Your task to perform on an android device: toggle notifications settings in the gmail app Image 0: 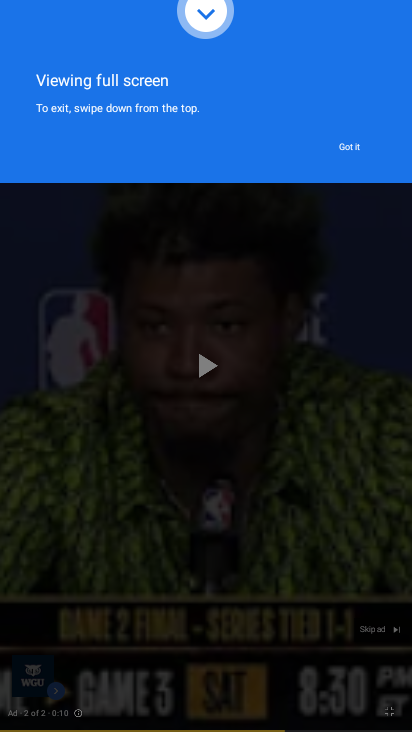
Step 0: press home button
Your task to perform on an android device: toggle notifications settings in the gmail app Image 1: 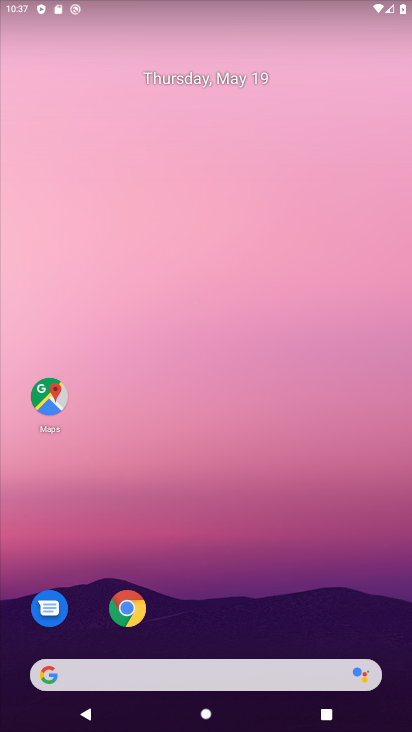
Step 1: drag from (395, 697) to (357, 158)
Your task to perform on an android device: toggle notifications settings in the gmail app Image 2: 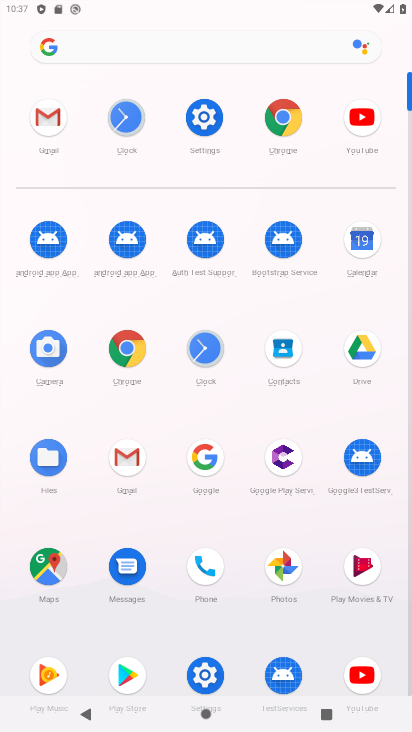
Step 2: click (130, 454)
Your task to perform on an android device: toggle notifications settings in the gmail app Image 3: 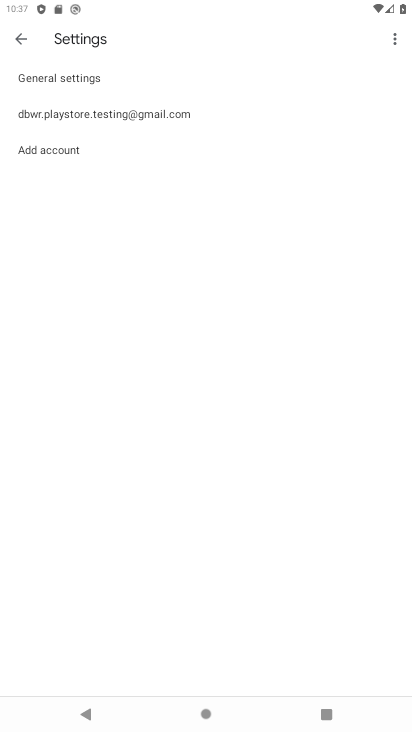
Step 3: click (59, 76)
Your task to perform on an android device: toggle notifications settings in the gmail app Image 4: 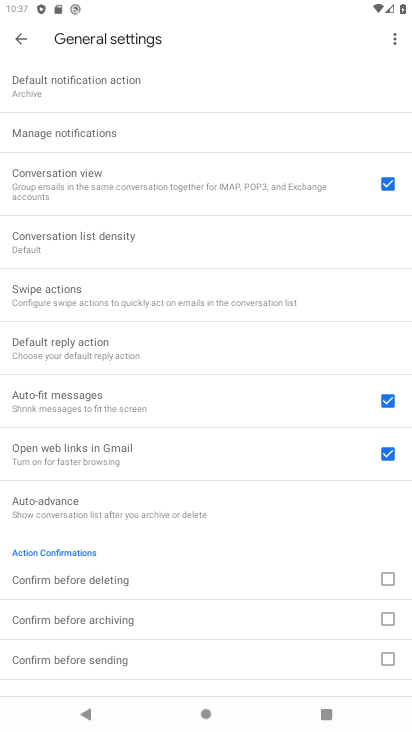
Step 4: click (53, 129)
Your task to perform on an android device: toggle notifications settings in the gmail app Image 5: 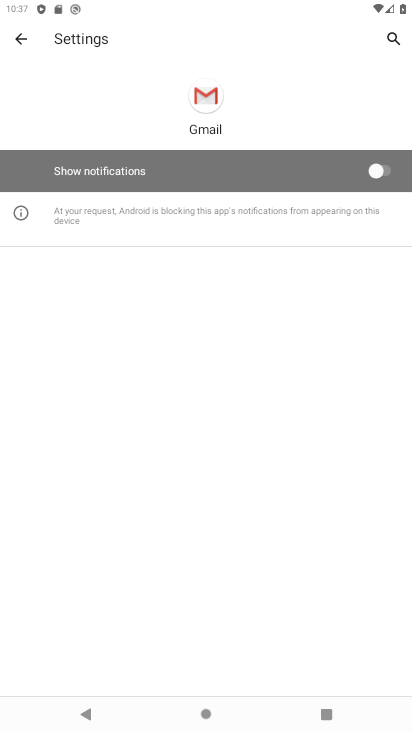
Step 5: click (383, 167)
Your task to perform on an android device: toggle notifications settings in the gmail app Image 6: 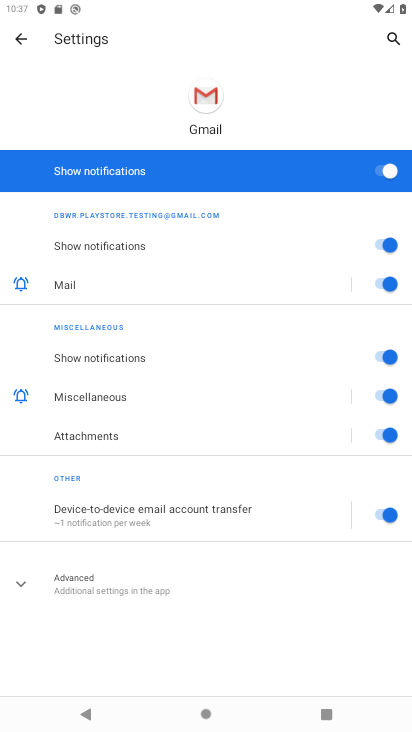
Step 6: task complete